Your task to perform on an android device: What's the weather going to be tomorrow? Image 0: 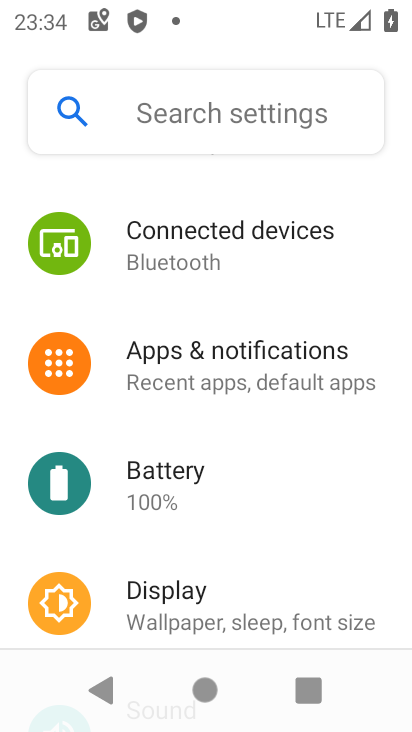
Step 0: press home button
Your task to perform on an android device: What's the weather going to be tomorrow? Image 1: 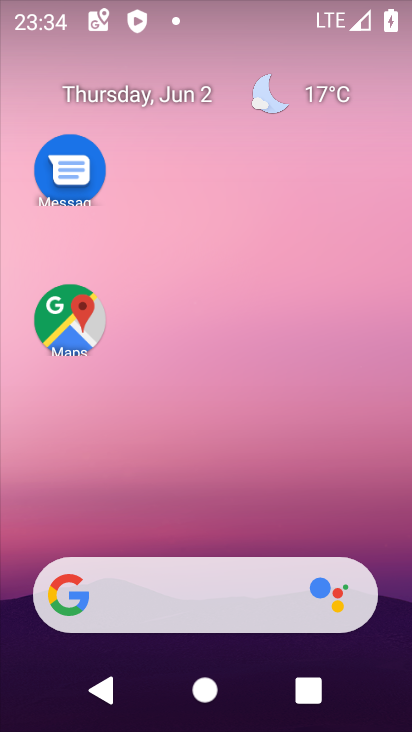
Step 1: drag from (347, 651) to (296, 295)
Your task to perform on an android device: What's the weather going to be tomorrow? Image 2: 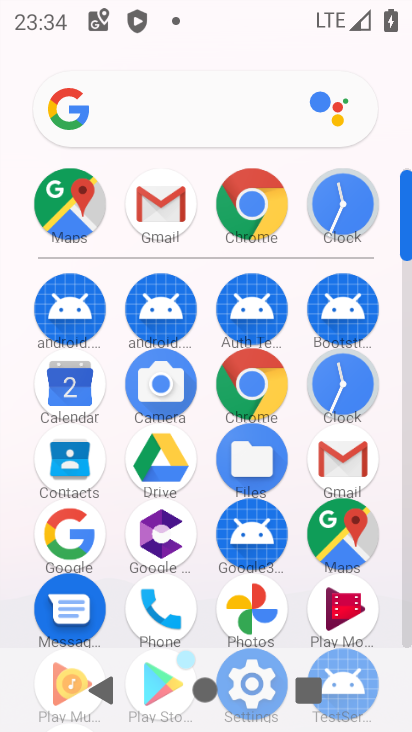
Step 2: click (233, 225)
Your task to perform on an android device: What's the weather going to be tomorrow? Image 3: 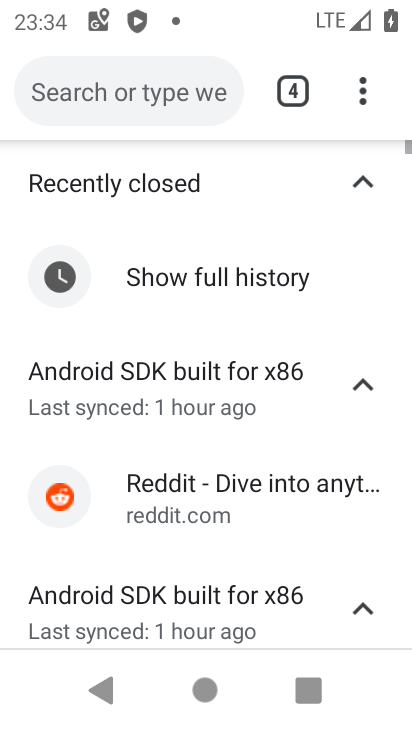
Step 3: click (183, 106)
Your task to perform on an android device: What's the weather going to be tomorrow? Image 4: 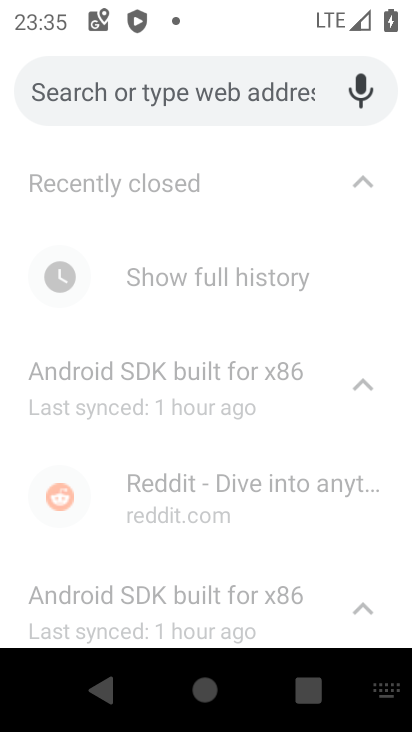
Step 4: type " What's the weather going to be tomorrow?"
Your task to perform on an android device: What's the weather going to be tomorrow? Image 5: 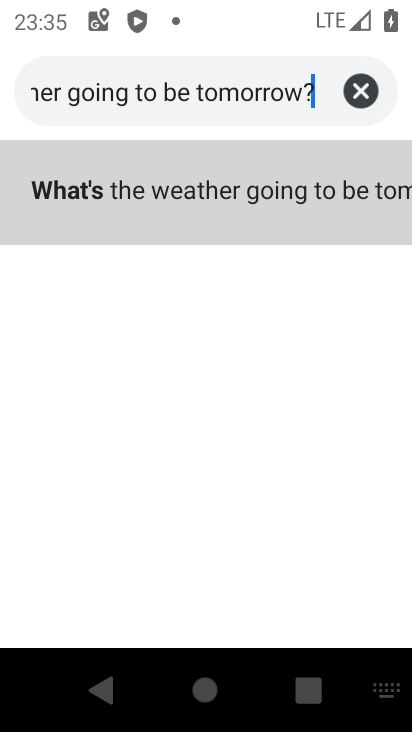
Step 5: type ""
Your task to perform on an android device: What's the weather going to be tomorrow? Image 6: 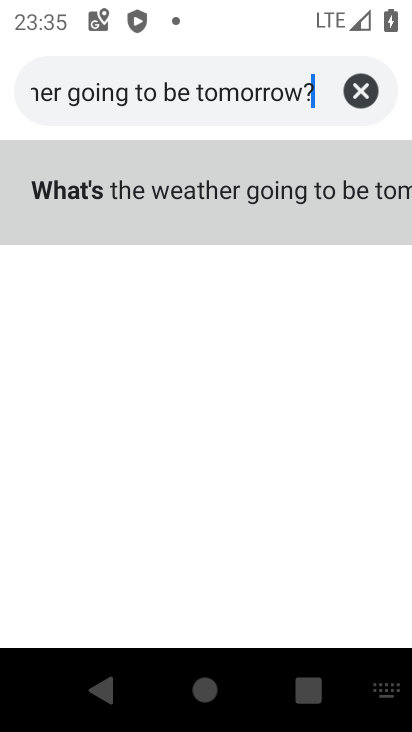
Step 6: click (145, 180)
Your task to perform on an android device: What's the weather going to be tomorrow? Image 7: 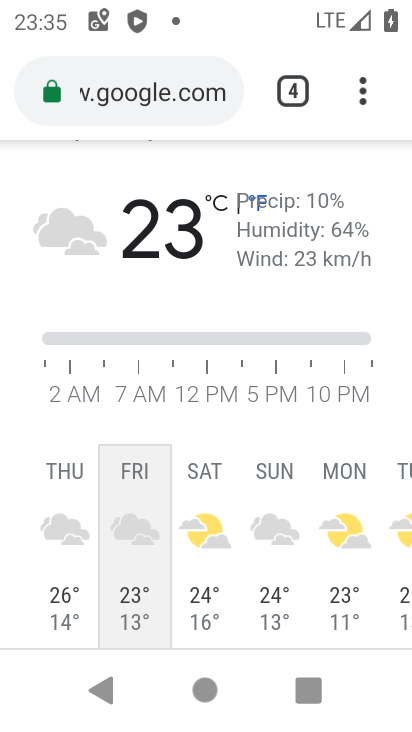
Step 7: task complete